Your task to perform on an android device: Open maps Image 0: 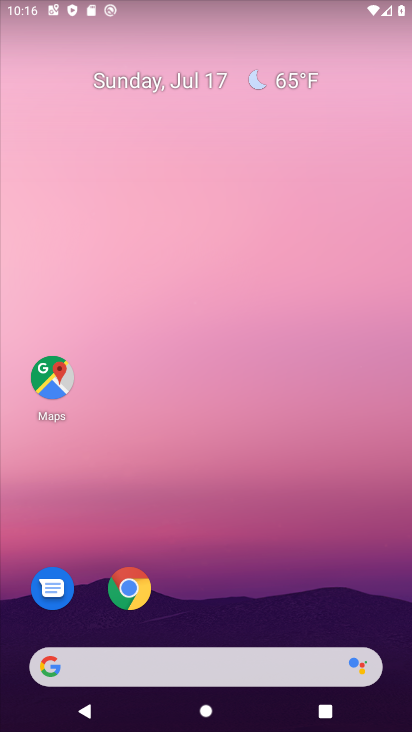
Step 0: click (47, 379)
Your task to perform on an android device: Open maps Image 1: 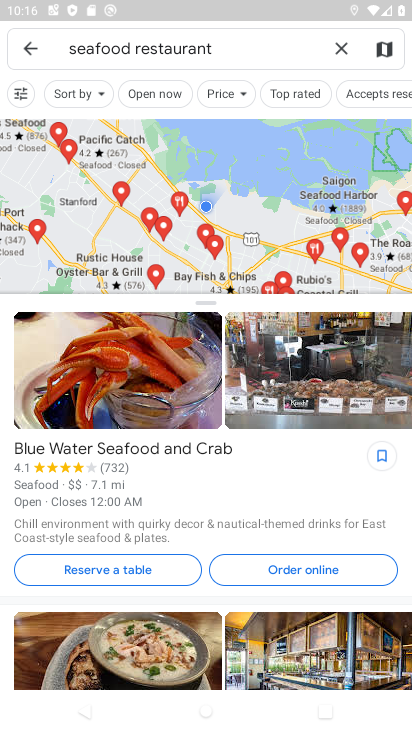
Step 1: task complete